Your task to perform on an android device: Open settings Image 0: 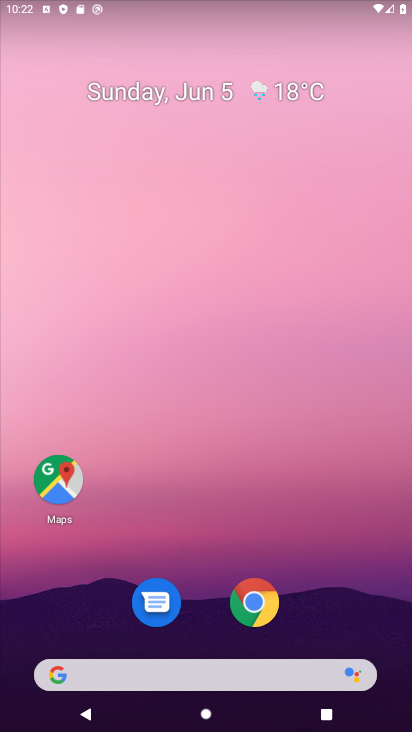
Step 0: drag from (323, 592) to (247, 110)
Your task to perform on an android device: Open settings Image 1: 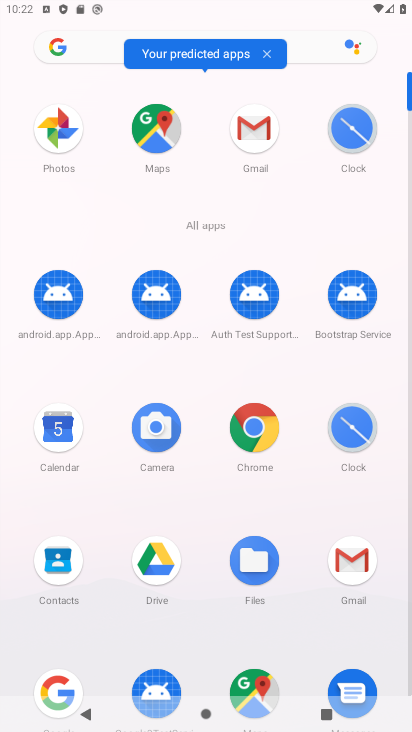
Step 1: task complete